Your task to perform on an android device: Open internet settings Image 0: 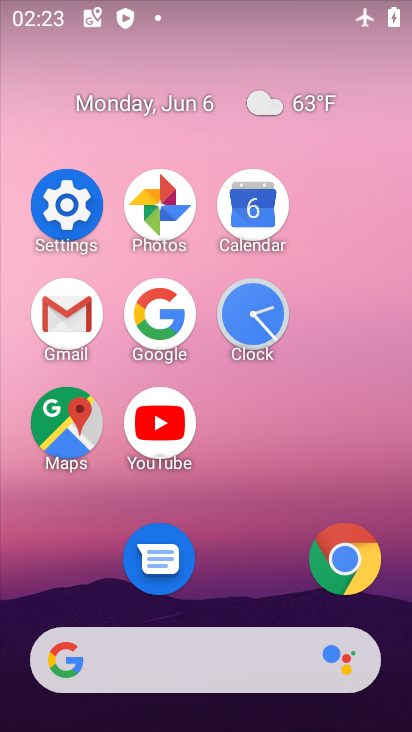
Step 0: click (86, 207)
Your task to perform on an android device: Open internet settings Image 1: 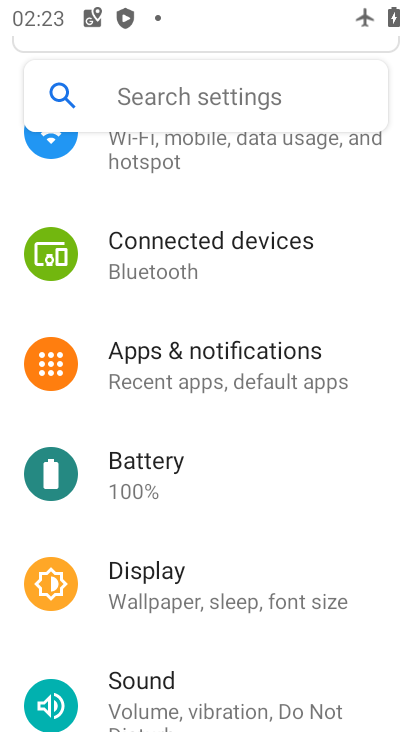
Step 1: drag from (320, 200) to (298, 614)
Your task to perform on an android device: Open internet settings Image 2: 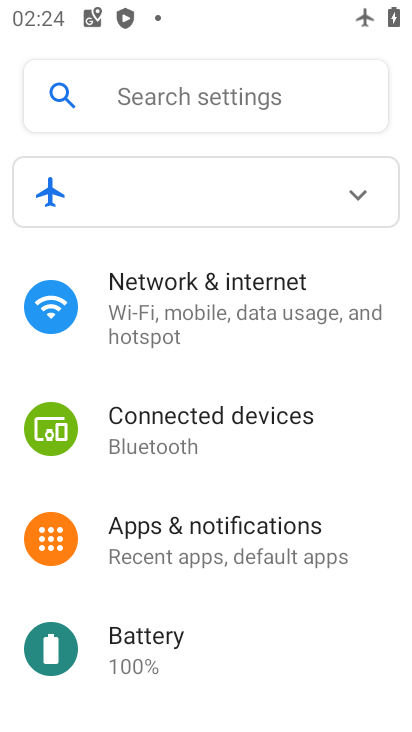
Step 2: click (303, 314)
Your task to perform on an android device: Open internet settings Image 3: 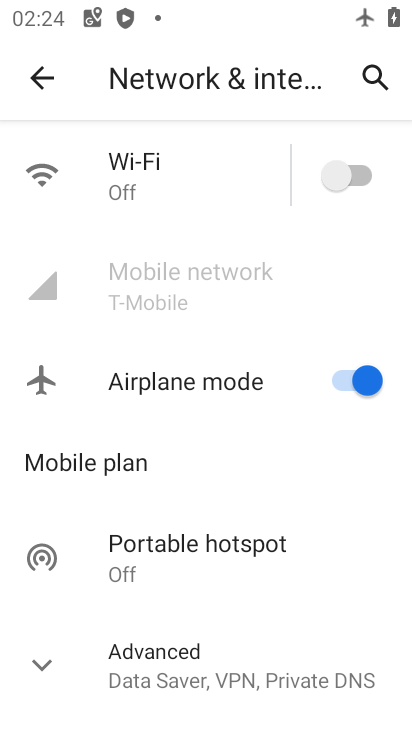
Step 3: task complete